Your task to perform on an android device: Search for Mexican restaurants on Maps Image 0: 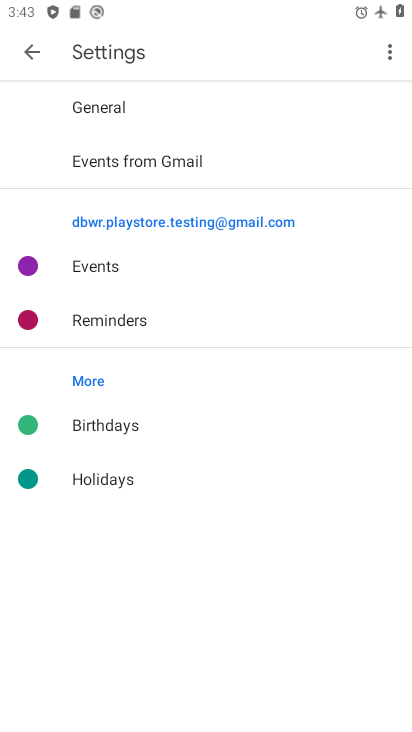
Step 0: press home button
Your task to perform on an android device: Search for Mexican restaurants on Maps Image 1: 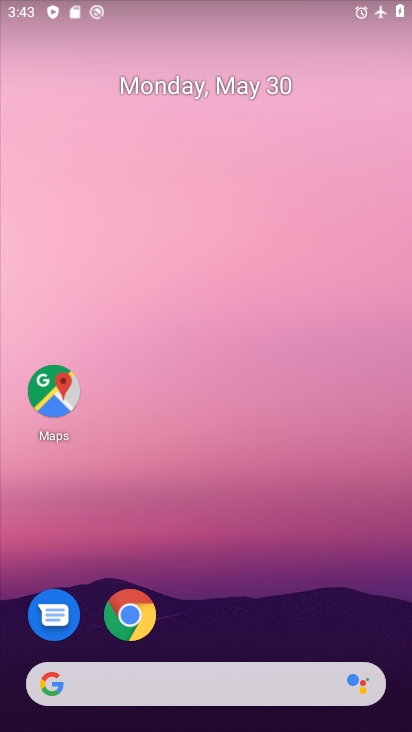
Step 1: click (60, 395)
Your task to perform on an android device: Search for Mexican restaurants on Maps Image 2: 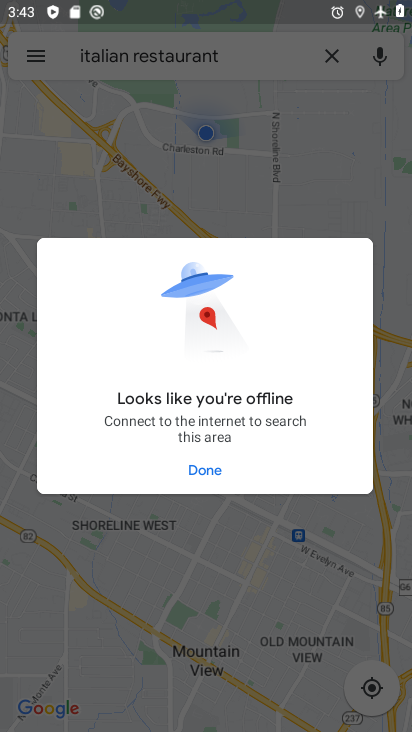
Step 2: click (208, 461)
Your task to perform on an android device: Search for Mexican restaurants on Maps Image 3: 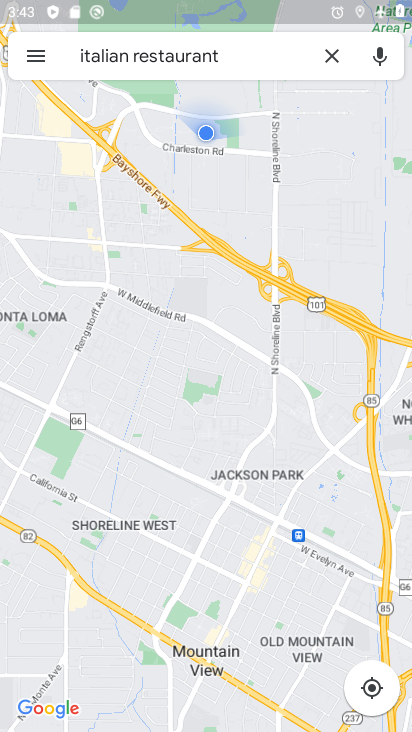
Step 3: click (330, 47)
Your task to perform on an android device: Search for Mexican restaurants on Maps Image 4: 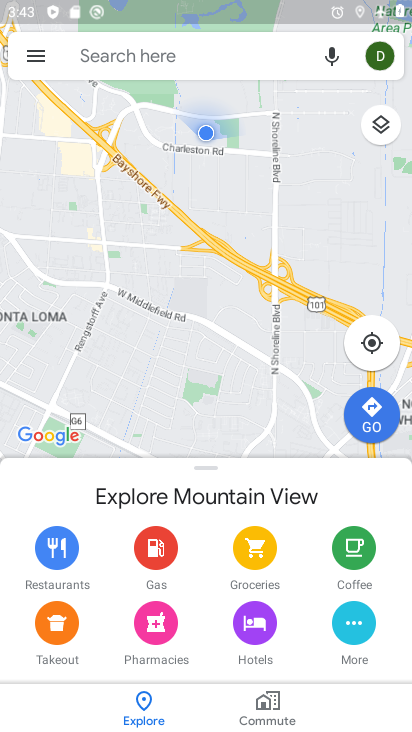
Step 4: click (267, 52)
Your task to perform on an android device: Search for Mexican restaurants on Maps Image 5: 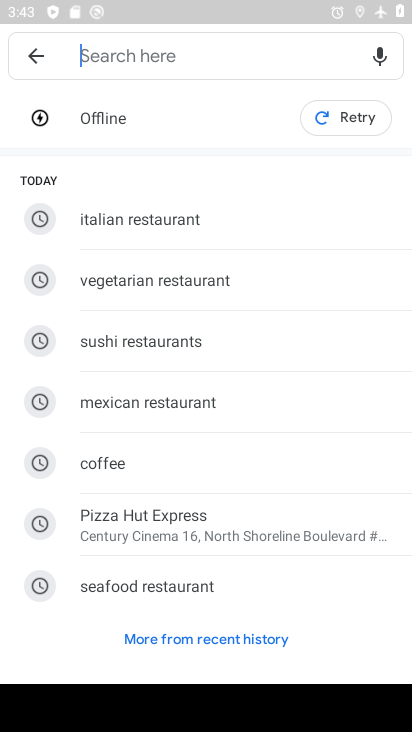
Step 5: click (127, 390)
Your task to perform on an android device: Search for Mexican restaurants on Maps Image 6: 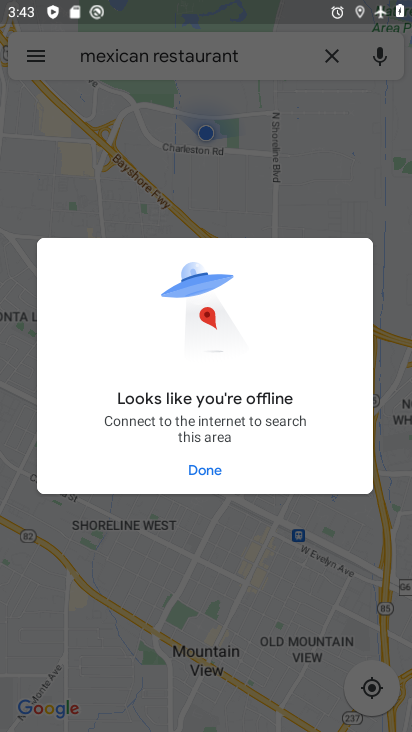
Step 6: task complete